Your task to perform on an android device: turn off smart reply in the gmail app Image 0: 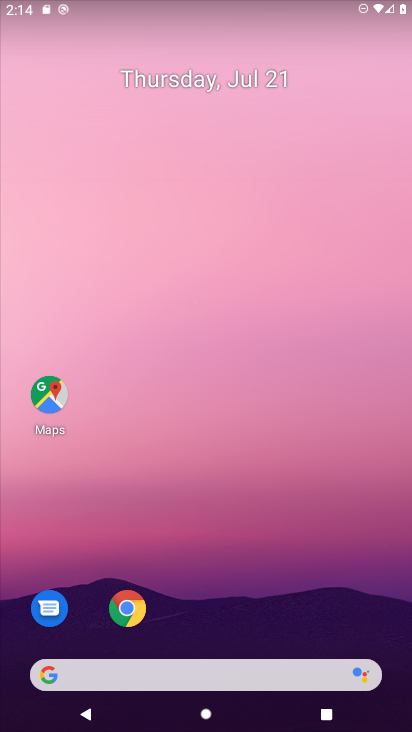
Step 0: drag from (229, 601) to (233, 183)
Your task to perform on an android device: turn off smart reply in the gmail app Image 1: 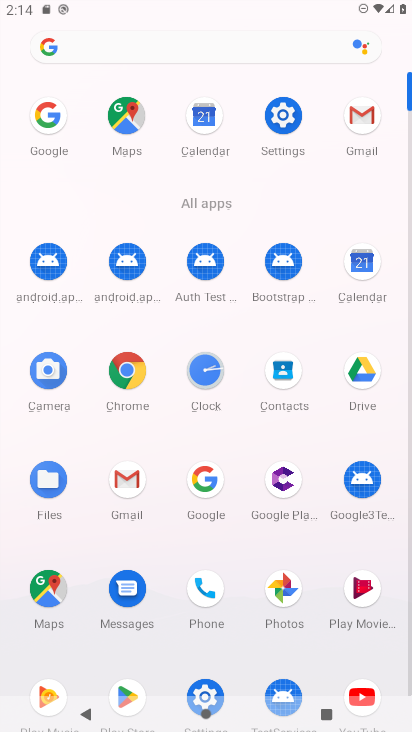
Step 1: click (348, 116)
Your task to perform on an android device: turn off smart reply in the gmail app Image 2: 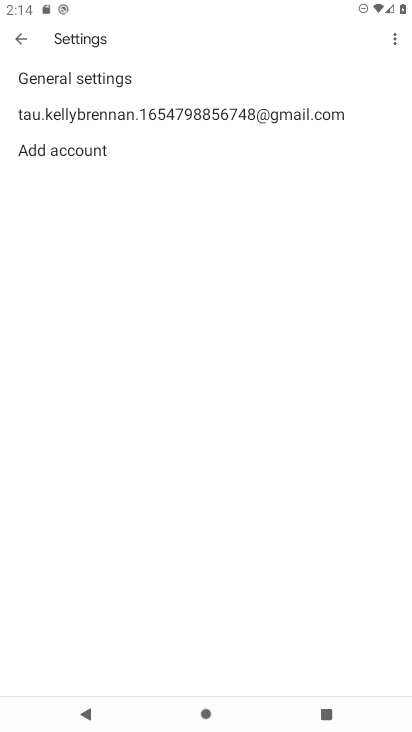
Step 2: click (96, 112)
Your task to perform on an android device: turn off smart reply in the gmail app Image 3: 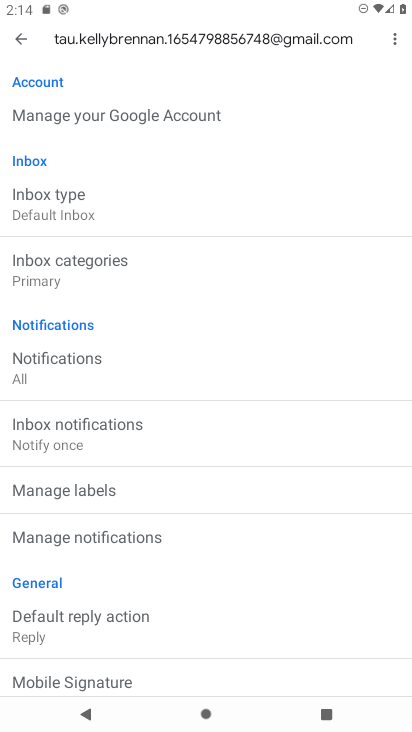
Step 3: drag from (137, 602) to (158, 212)
Your task to perform on an android device: turn off smart reply in the gmail app Image 4: 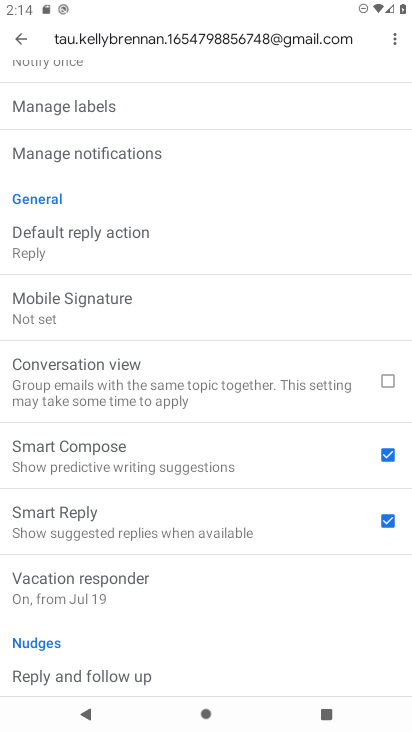
Step 4: click (384, 524)
Your task to perform on an android device: turn off smart reply in the gmail app Image 5: 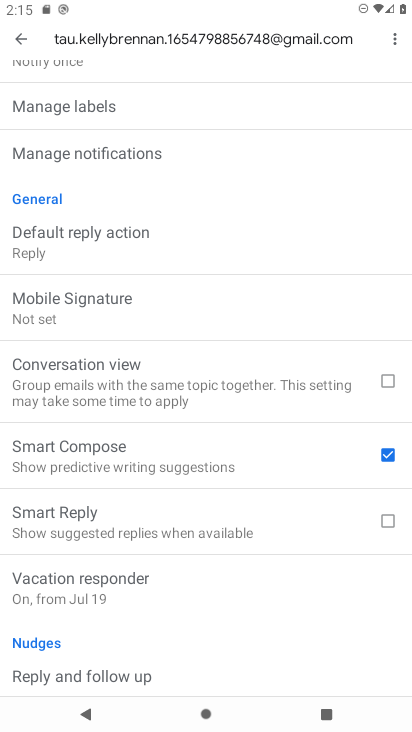
Step 5: task complete